Your task to perform on an android device: Go to Android settings Image 0: 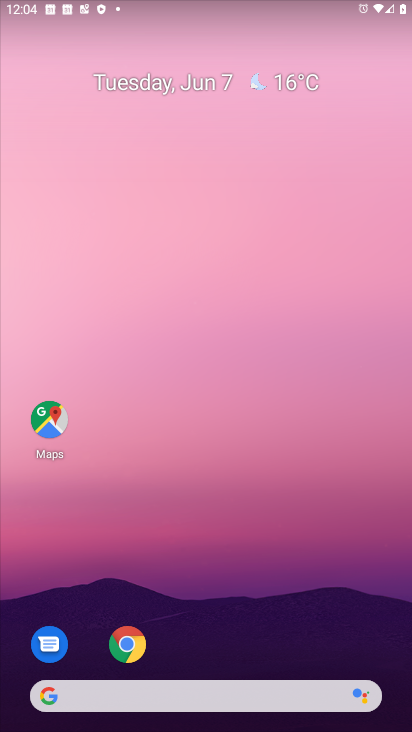
Step 0: drag from (237, 573) to (270, 61)
Your task to perform on an android device: Go to Android settings Image 1: 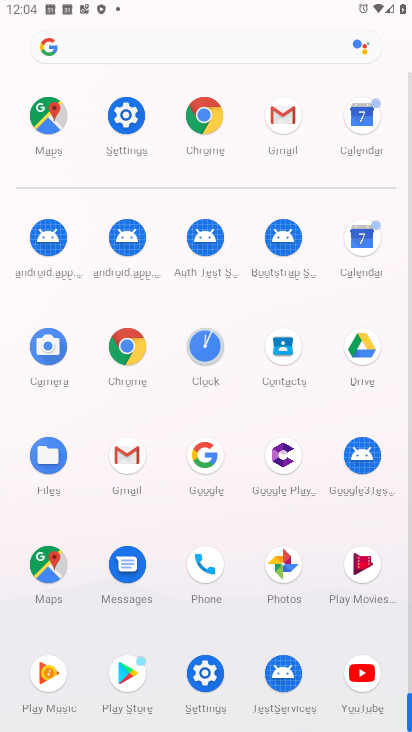
Step 1: click (201, 681)
Your task to perform on an android device: Go to Android settings Image 2: 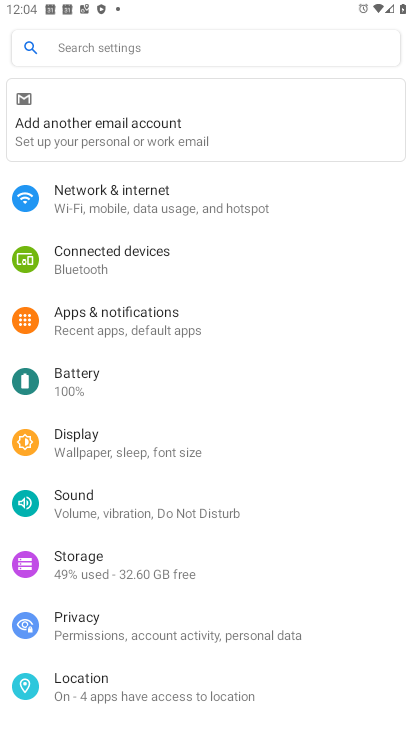
Step 2: task complete